Your task to perform on an android device: Show me the alarms in the clock app Image 0: 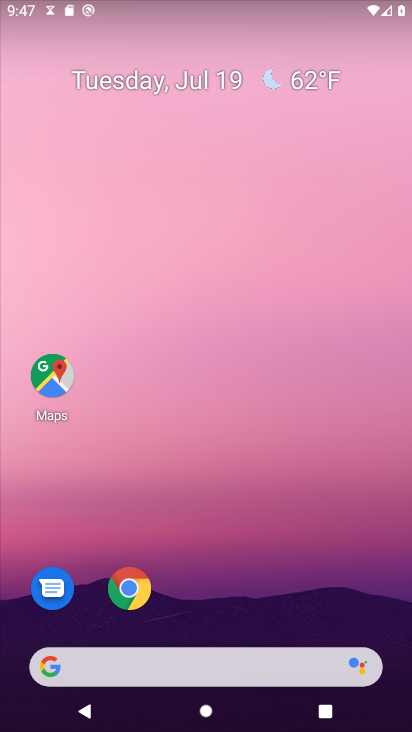
Step 0: drag from (204, 596) to (244, 151)
Your task to perform on an android device: Show me the alarms in the clock app Image 1: 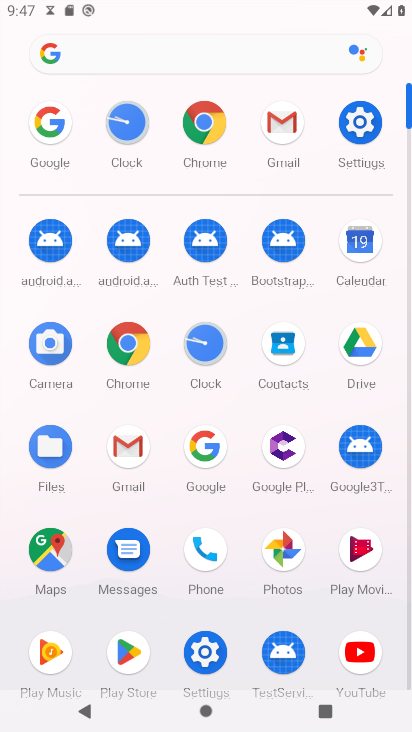
Step 1: click (217, 345)
Your task to perform on an android device: Show me the alarms in the clock app Image 2: 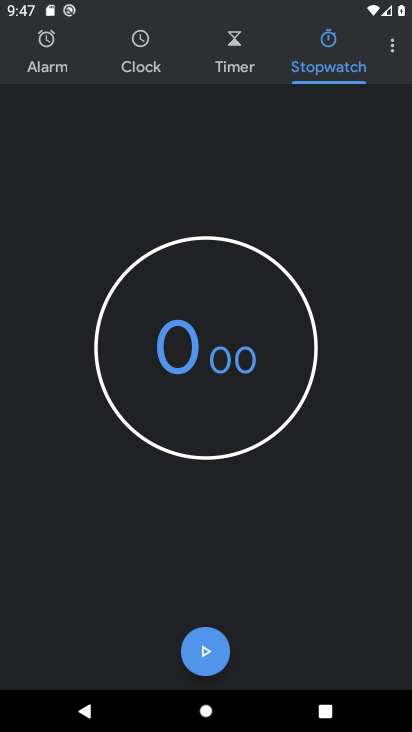
Step 2: click (49, 78)
Your task to perform on an android device: Show me the alarms in the clock app Image 3: 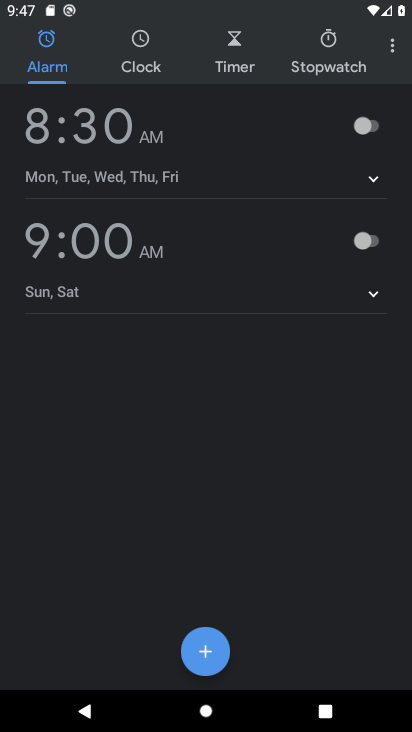
Step 3: task complete